Your task to perform on an android device: open a bookmark in the chrome app Image 0: 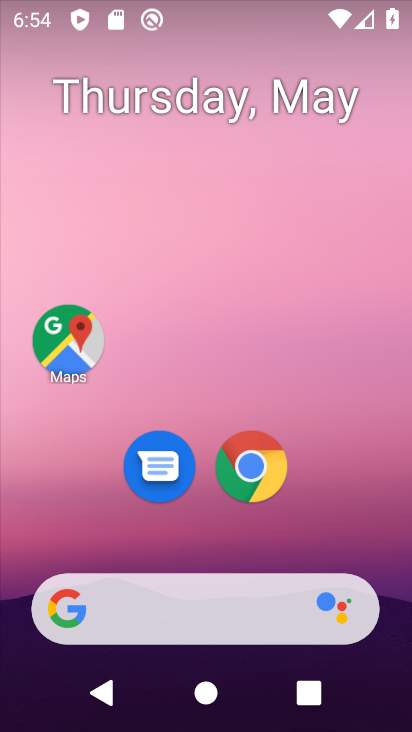
Step 0: click (265, 459)
Your task to perform on an android device: open a bookmark in the chrome app Image 1: 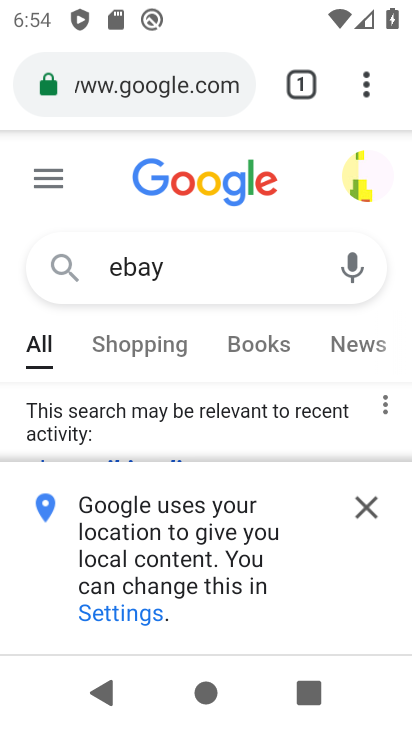
Step 1: click (366, 80)
Your task to perform on an android device: open a bookmark in the chrome app Image 2: 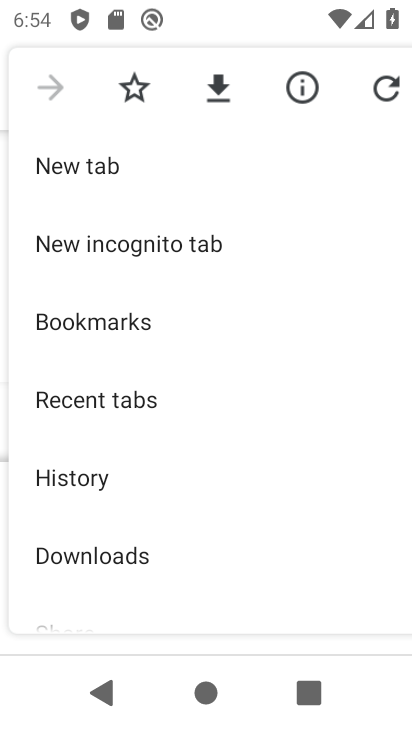
Step 2: click (110, 306)
Your task to perform on an android device: open a bookmark in the chrome app Image 3: 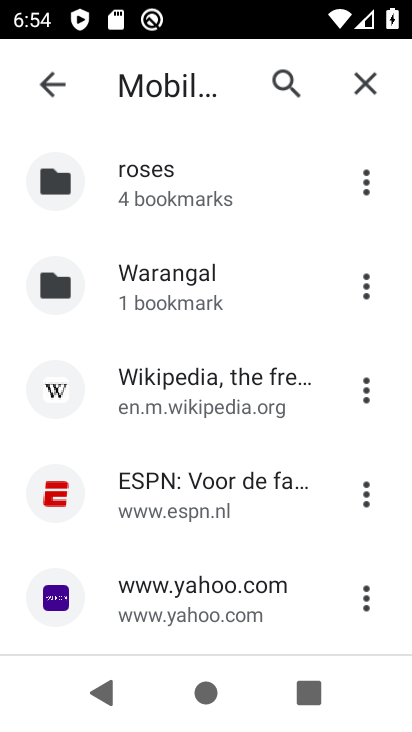
Step 3: task complete